Your task to perform on an android device: Search for sushi restaurants on Maps Image 0: 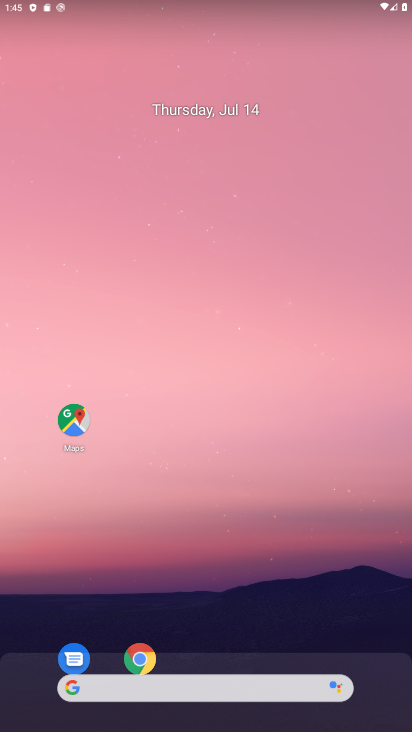
Step 0: drag from (204, 666) to (237, 218)
Your task to perform on an android device: Search for sushi restaurants on Maps Image 1: 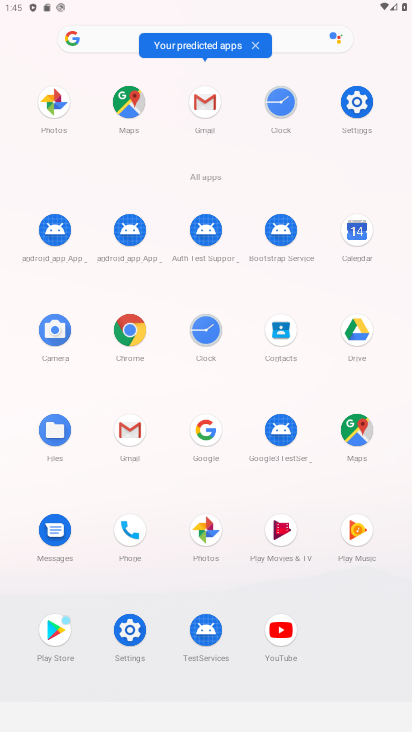
Step 1: click (366, 427)
Your task to perform on an android device: Search for sushi restaurants on Maps Image 2: 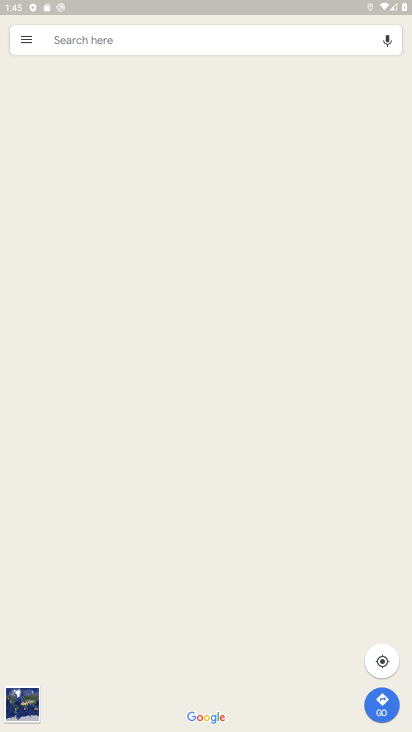
Step 2: click (168, 45)
Your task to perform on an android device: Search for sushi restaurants on Maps Image 3: 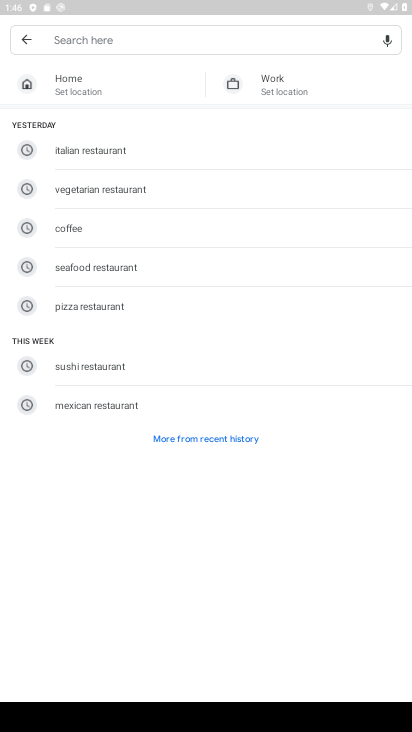
Step 3: type "sushi restaurants"
Your task to perform on an android device: Search for sushi restaurants on Maps Image 4: 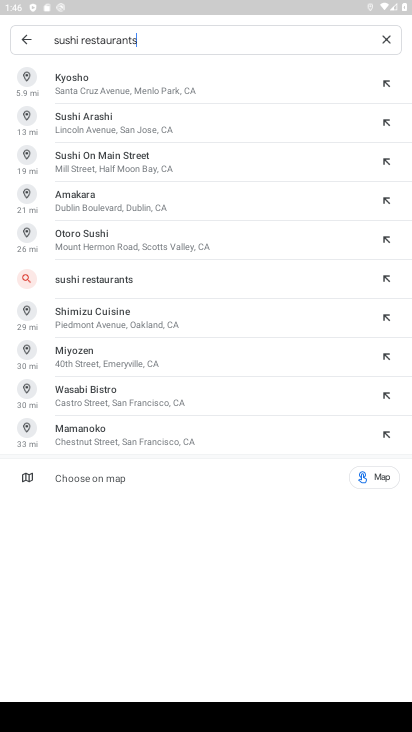
Step 4: press enter
Your task to perform on an android device: Search for sushi restaurants on Maps Image 5: 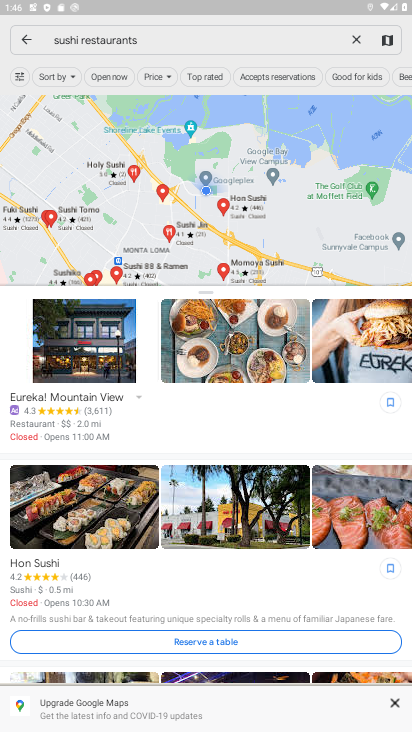
Step 5: task complete